Your task to perform on an android device: stop showing notifications on the lock screen Image 0: 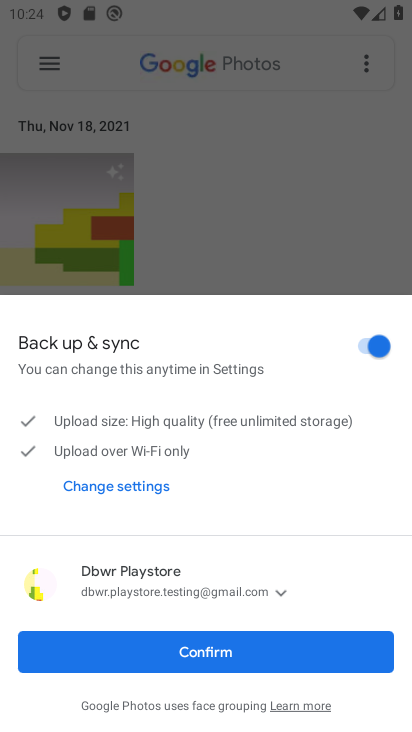
Step 0: press home button
Your task to perform on an android device: stop showing notifications on the lock screen Image 1: 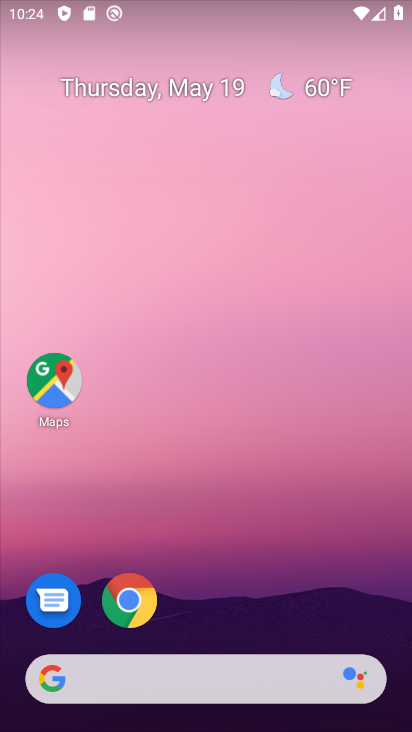
Step 1: drag from (370, 569) to (354, 217)
Your task to perform on an android device: stop showing notifications on the lock screen Image 2: 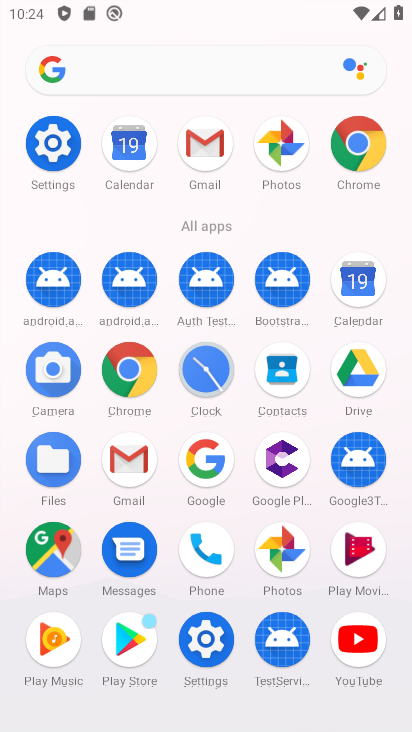
Step 2: click (57, 174)
Your task to perform on an android device: stop showing notifications on the lock screen Image 3: 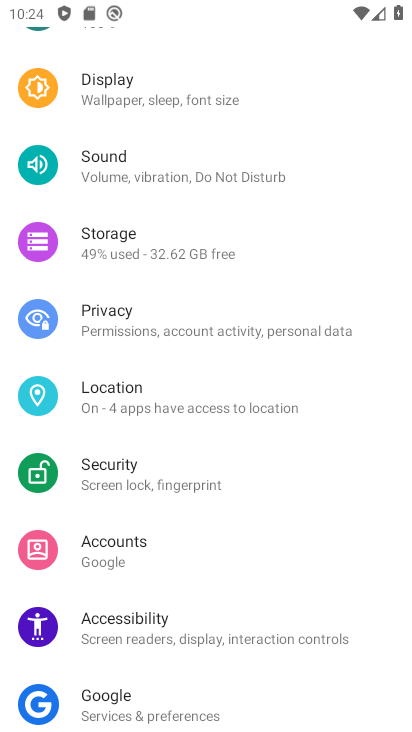
Step 3: drag from (359, 243) to (349, 371)
Your task to perform on an android device: stop showing notifications on the lock screen Image 4: 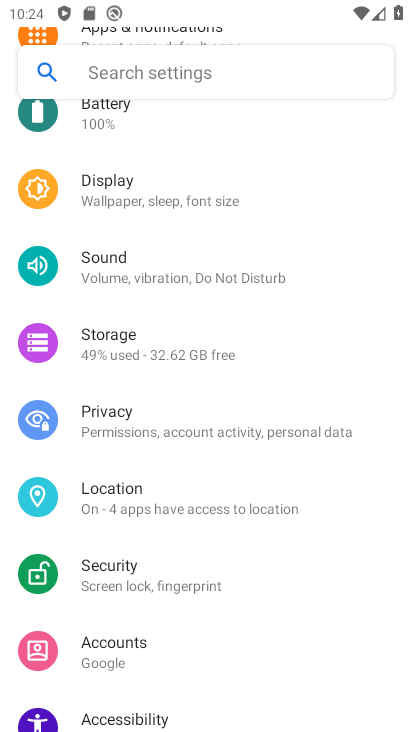
Step 4: drag from (347, 207) to (339, 362)
Your task to perform on an android device: stop showing notifications on the lock screen Image 5: 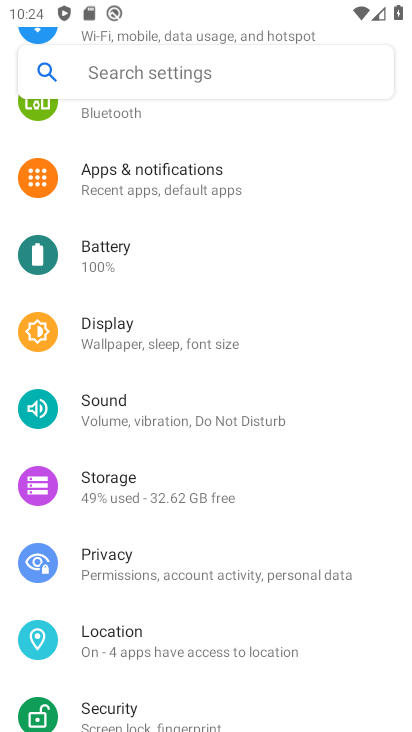
Step 5: drag from (334, 205) to (339, 307)
Your task to perform on an android device: stop showing notifications on the lock screen Image 6: 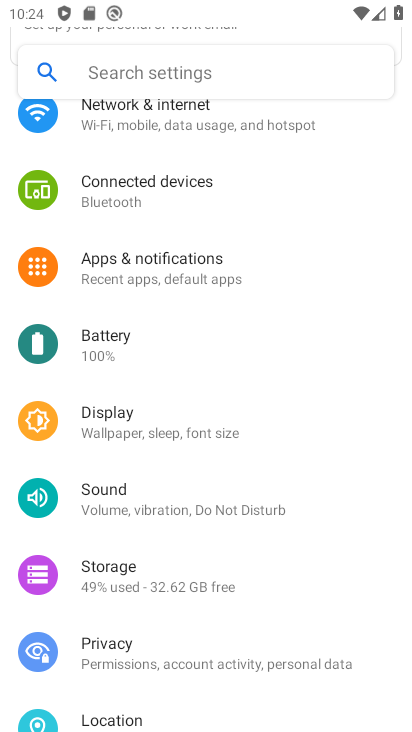
Step 6: drag from (332, 196) to (328, 293)
Your task to perform on an android device: stop showing notifications on the lock screen Image 7: 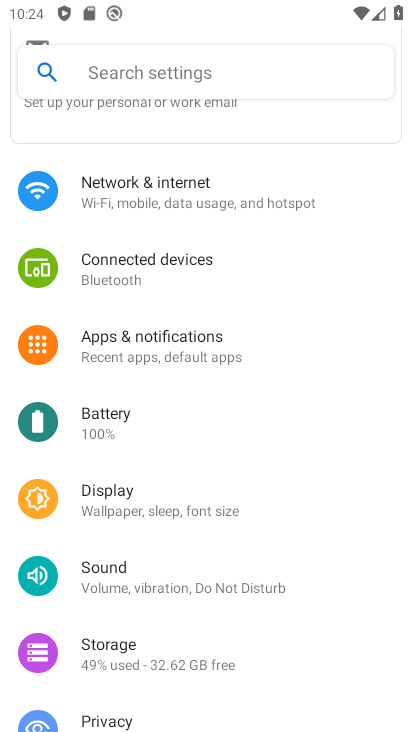
Step 7: drag from (335, 190) to (336, 302)
Your task to perform on an android device: stop showing notifications on the lock screen Image 8: 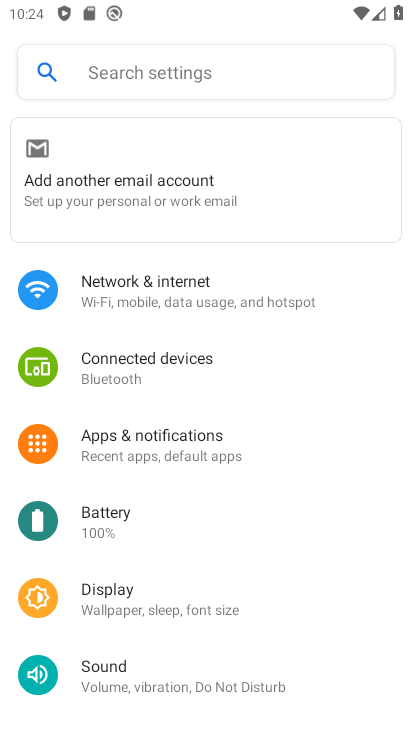
Step 8: drag from (339, 174) to (340, 298)
Your task to perform on an android device: stop showing notifications on the lock screen Image 9: 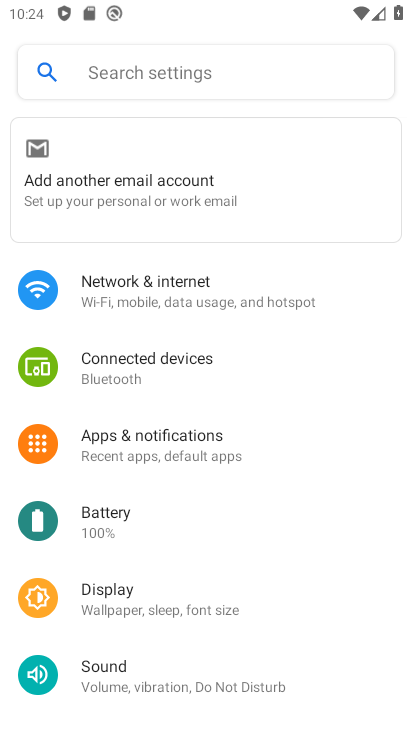
Step 9: drag from (329, 419) to (339, 314)
Your task to perform on an android device: stop showing notifications on the lock screen Image 10: 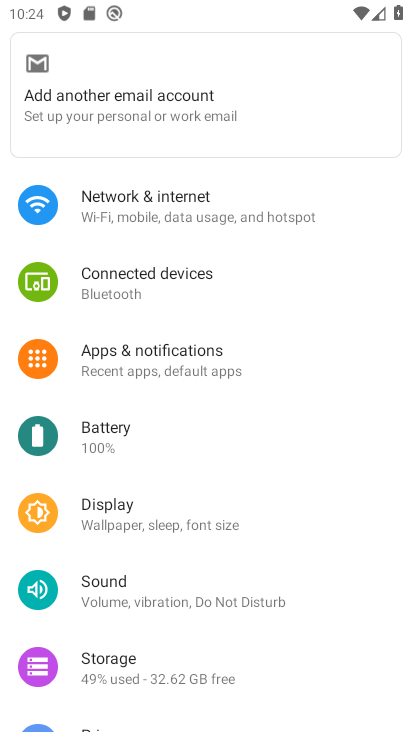
Step 10: drag from (340, 425) to (343, 309)
Your task to perform on an android device: stop showing notifications on the lock screen Image 11: 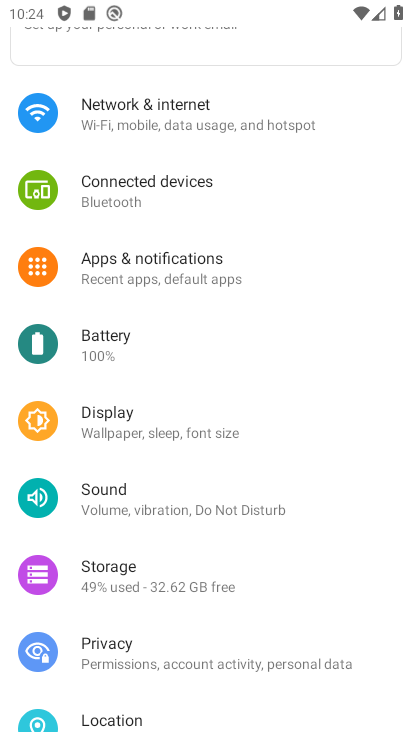
Step 11: drag from (339, 456) to (343, 346)
Your task to perform on an android device: stop showing notifications on the lock screen Image 12: 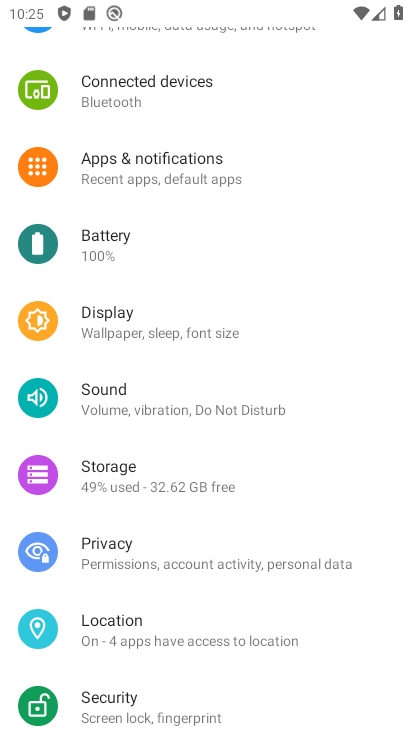
Step 12: drag from (341, 485) to (356, 381)
Your task to perform on an android device: stop showing notifications on the lock screen Image 13: 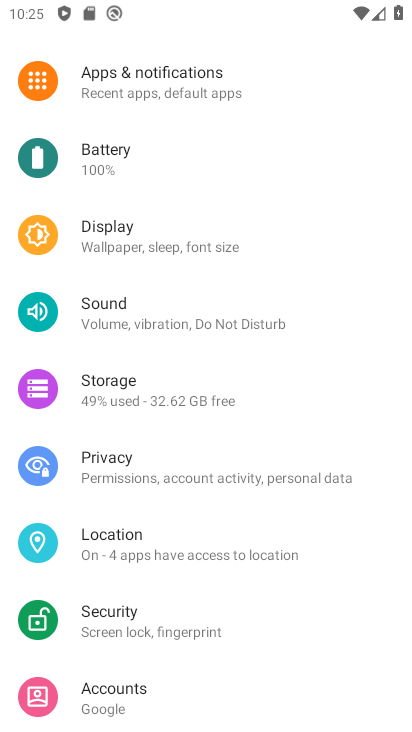
Step 13: drag from (342, 528) to (343, 415)
Your task to perform on an android device: stop showing notifications on the lock screen Image 14: 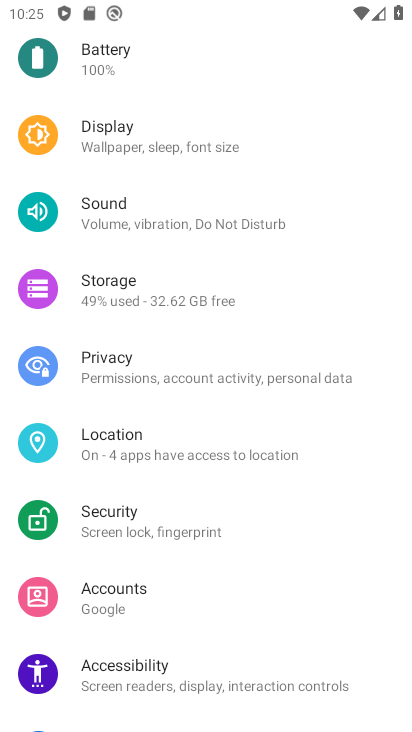
Step 14: drag from (335, 545) to (343, 462)
Your task to perform on an android device: stop showing notifications on the lock screen Image 15: 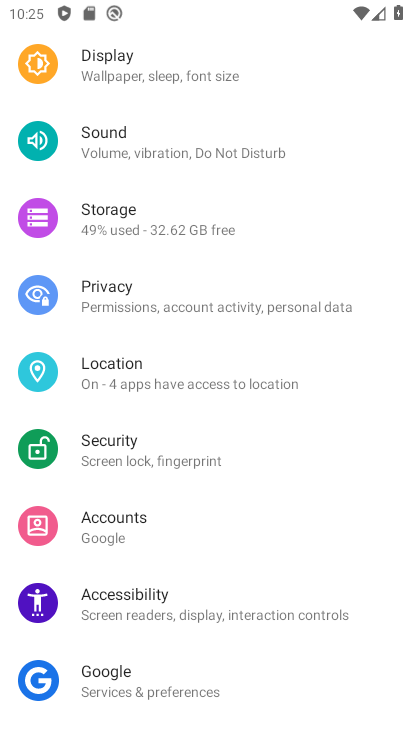
Step 15: drag from (345, 541) to (344, 468)
Your task to perform on an android device: stop showing notifications on the lock screen Image 16: 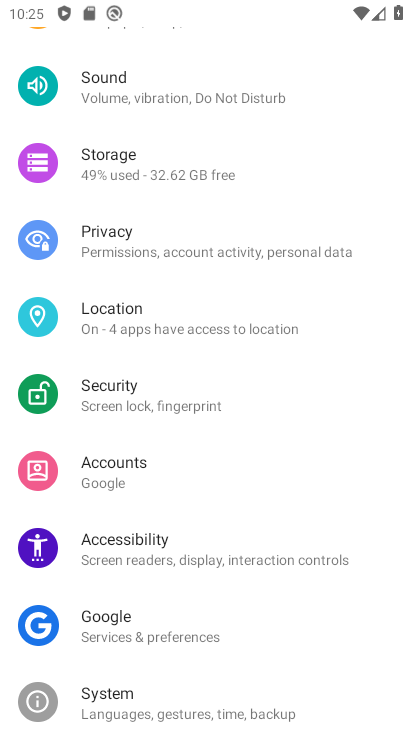
Step 16: drag from (335, 579) to (342, 496)
Your task to perform on an android device: stop showing notifications on the lock screen Image 17: 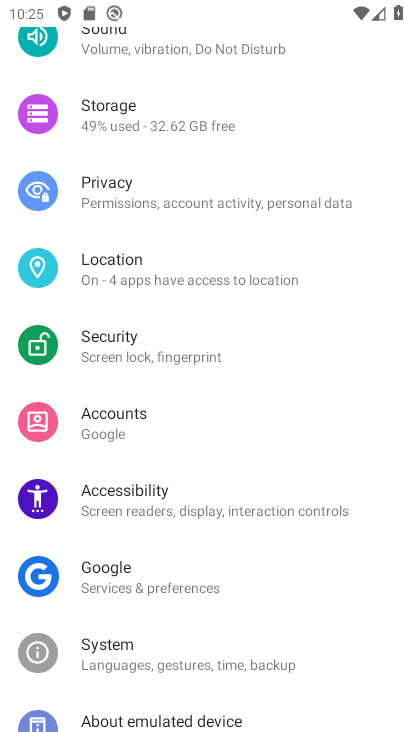
Step 17: drag from (324, 593) to (323, 486)
Your task to perform on an android device: stop showing notifications on the lock screen Image 18: 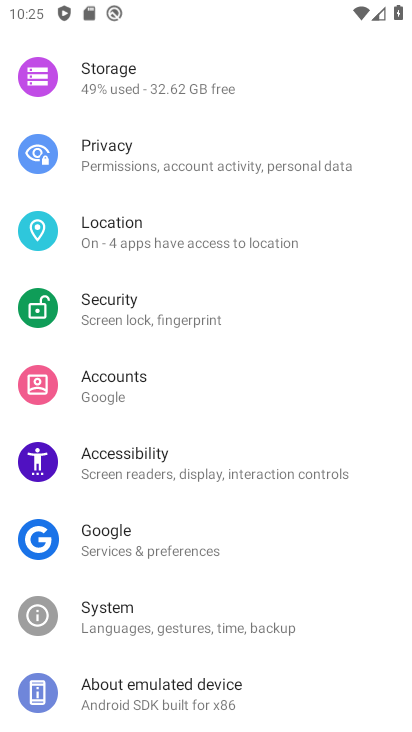
Step 18: drag from (323, 434) to (323, 516)
Your task to perform on an android device: stop showing notifications on the lock screen Image 19: 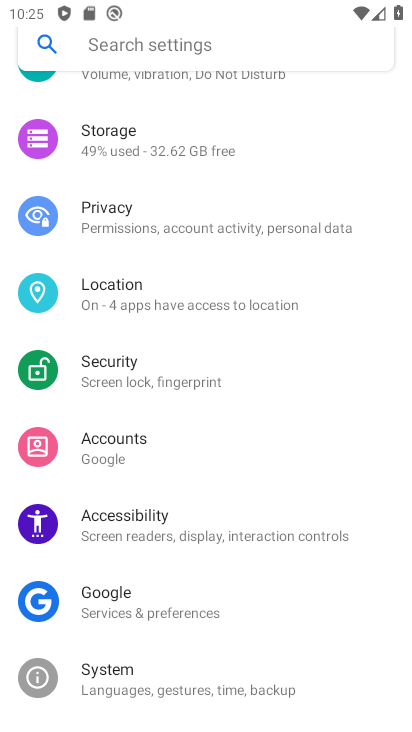
Step 19: drag from (323, 401) to (324, 509)
Your task to perform on an android device: stop showing notifications on the lock screen Image 20: 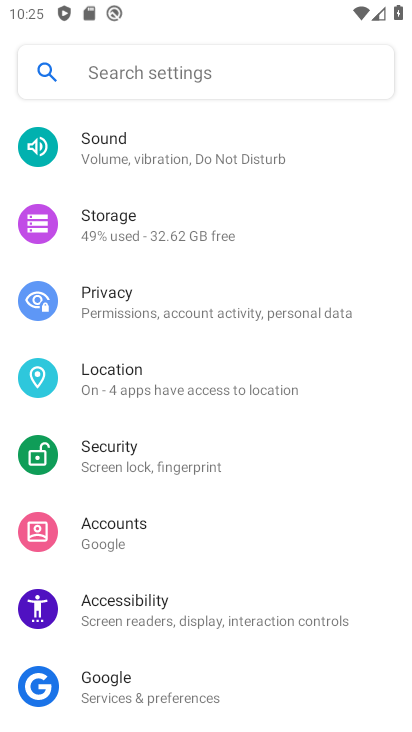
Step 20: drag from (333, 375) to (335, 474)
Your task to perform on an android device: stop showing notifications on the lock screen Image 21: 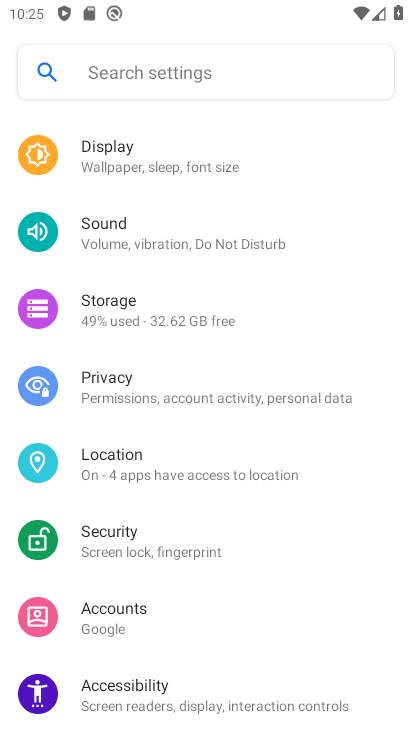
Step 21: drag from (348, 350) to (350, 469)
Your task to perform on an android device: stop showing notifications on the lock screen Image 22: 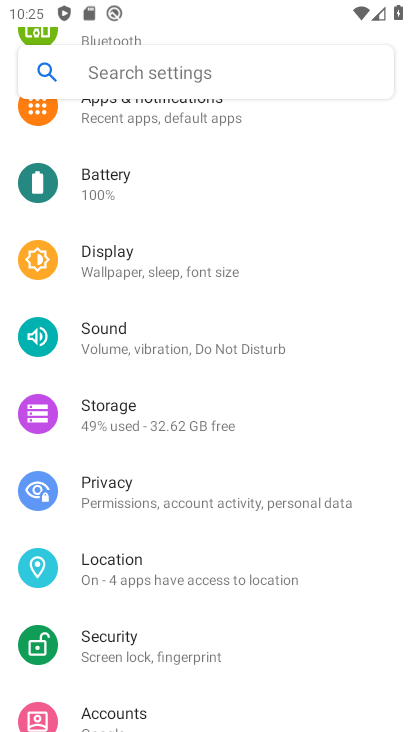
Step 22: drag from (346, 324) to (346, 433)
Your task to perform on an android device: stop showing notifications on the lock screen Image 23: 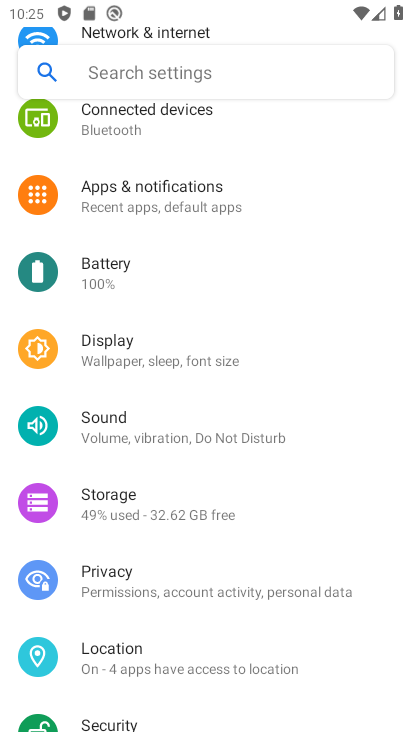
Step 23: drag from (334, 299) to (334, 394)
Your task to perform on an android device: stop showing notifications on the lock screen Image 24: 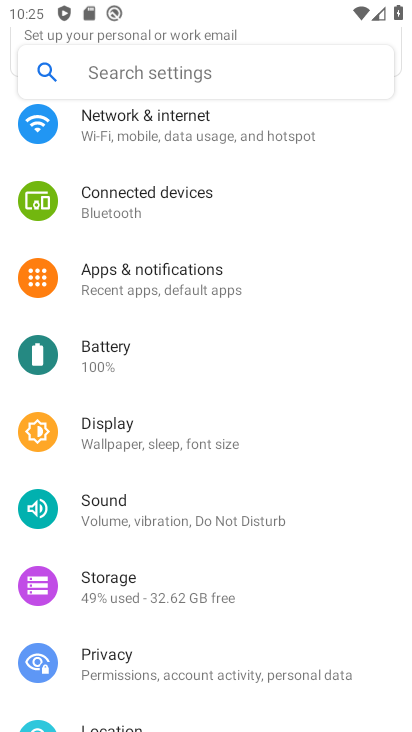
Step 24: click (230, 282)
Your task to perform on an android device: stop showing notifications on the lock screen Image 25: 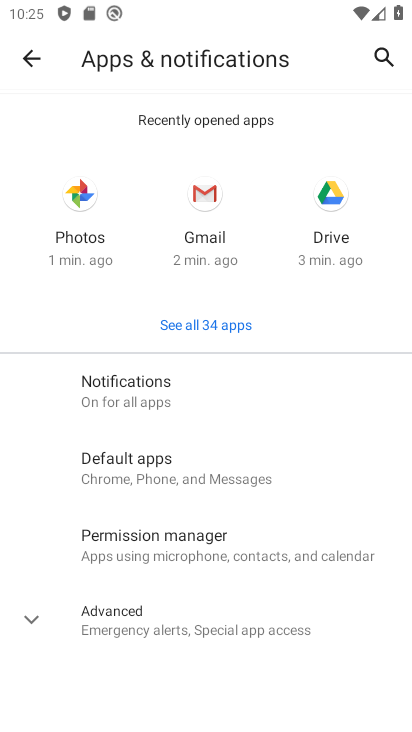
Step 25: click (170, 410)
Your task to perform on an android device: stop showing notifications on the lock screen Image 26: 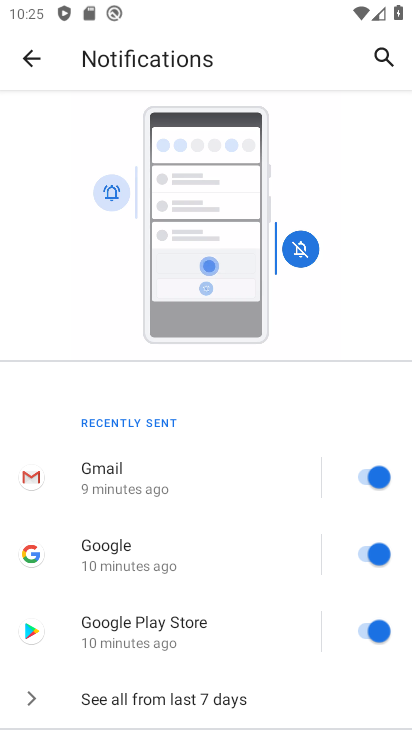
Step 26: drag from (246, 568) to (253, 437)
Your task to perform on an android device: stop showing notifications on the lock screen Image 27: 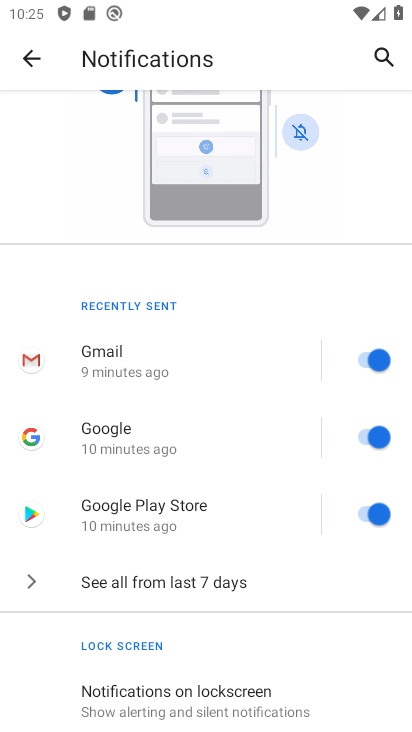
Step 27: drag from (254, 618) to (256, 520)
Your task to perform on an android device: stop showing notifications on the lock screen Image 28: 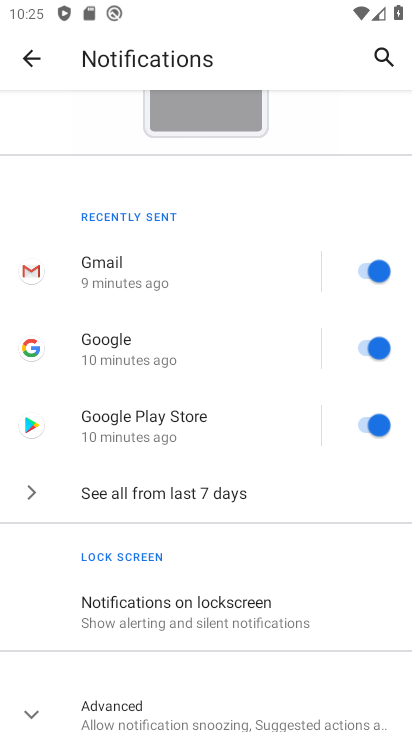
Step 28: click (218, 622)
Your task to perform on an android device: stop showing notifications on the lock screen Image 29: 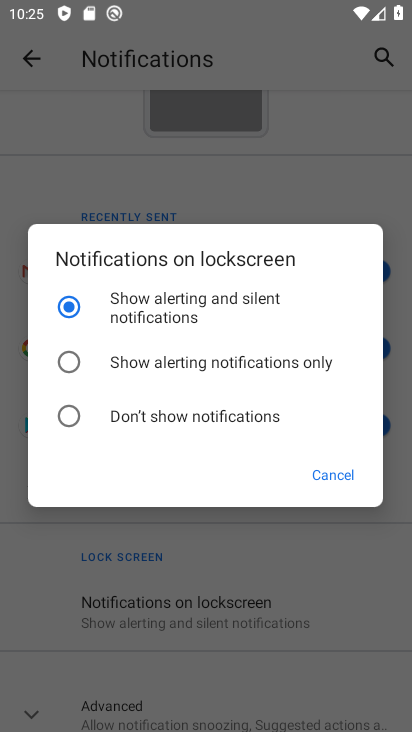
Step 29: click (142, 431)
Your task to perform on an android device: stop showing notifications on the lock screen Image 30: 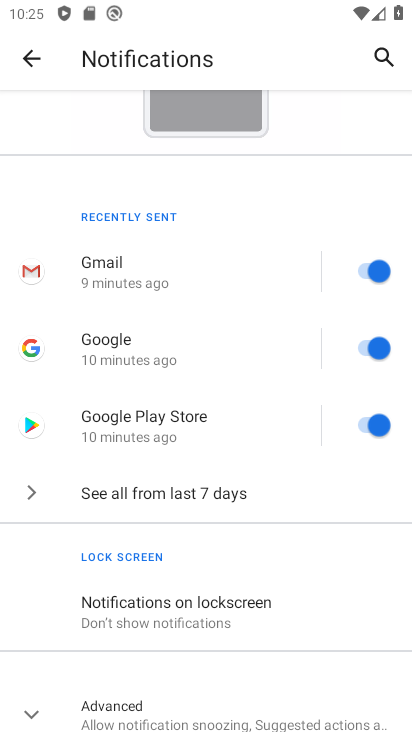
Step 30: task complete